Your task to perform on an android device: Go to internet settings Image 0: 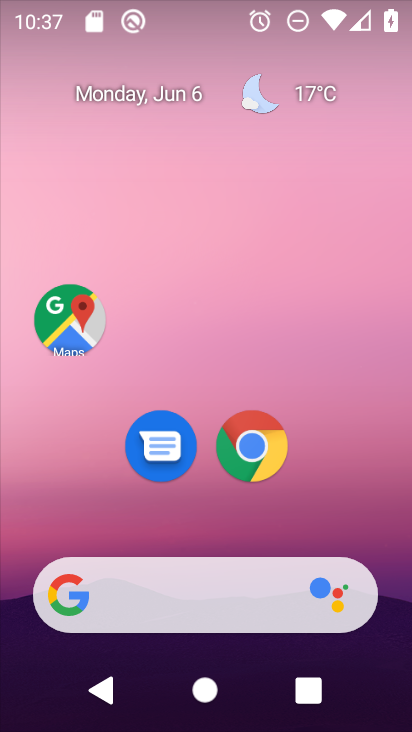
Step 0: drag from (184, 18) to (257, 274)
Your task to perform on an android device: Go to internet settings Image 1: 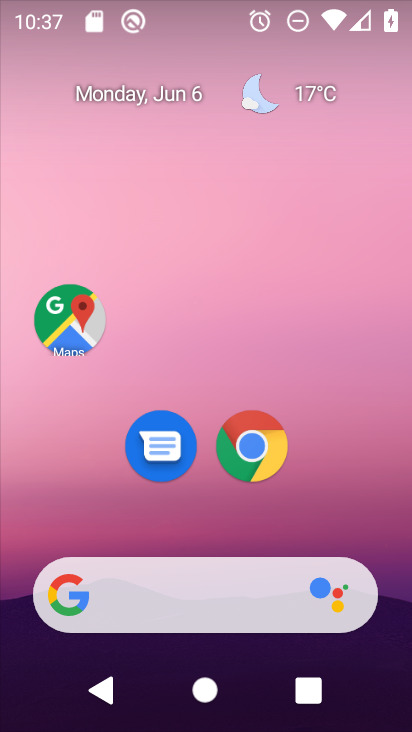
Step 1: drag from (207, 10) to (292, 499)
Your task to perform on an android device: Go to internet settings Image 2: 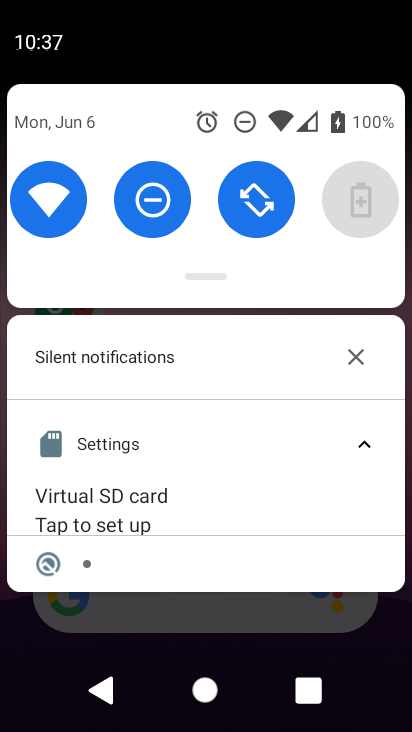
Step 2: drag from (199, 166) to (211, 582)
Your task to perform on an android device: Go to internet settings Image 3: 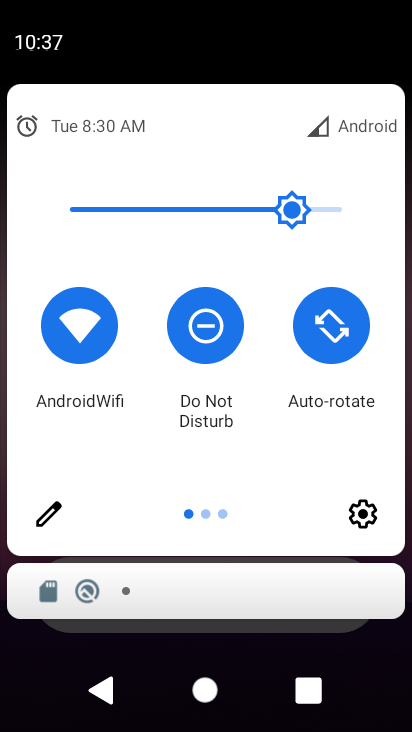
Step 3: drag from (360, 381) to (16, 402)
Your task to perform on an android device: Go to internet settings Image 4: 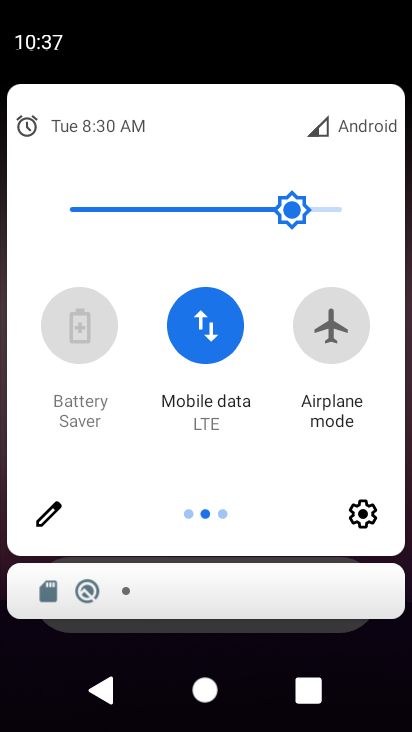
Step 4: click (180, 319)
Your task to perform on an android device: Go to internet settings Image 5: 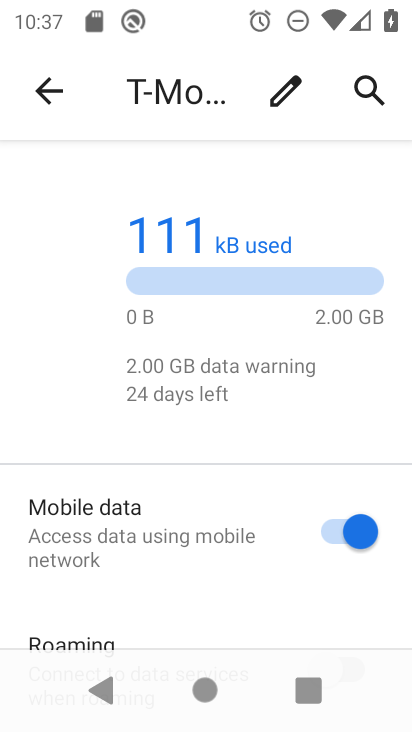
Step 5: task complete